Your task to perform on an android device: check battery use Image 0: 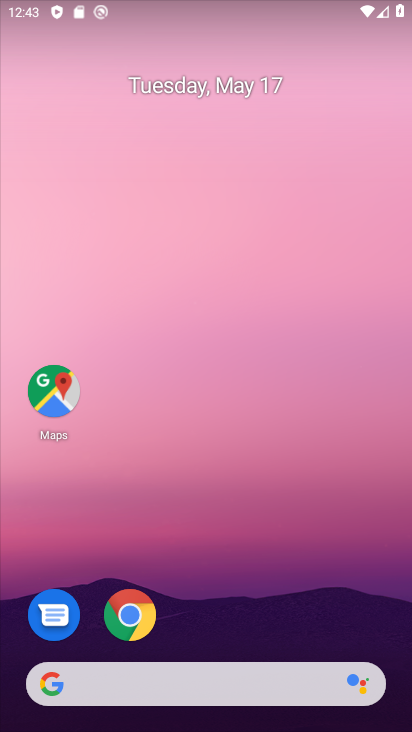
Step 0: drag from (255, 590) to (220, 136)
Your task to perform on an android device: check battery use Image 1: 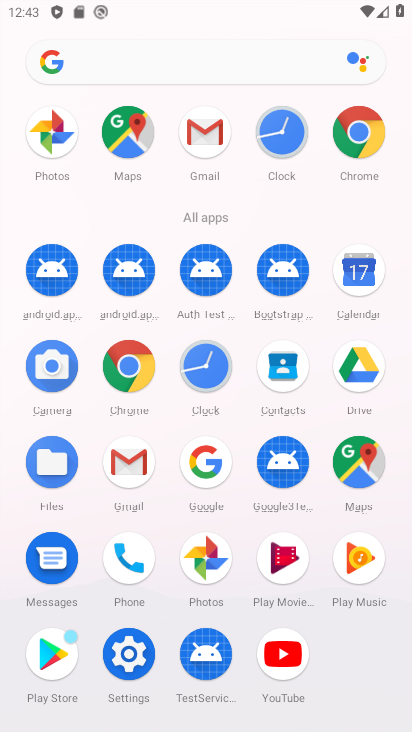
Step 1: click (128, 653)
Your task to perform on an android device: check battery use Image 2: 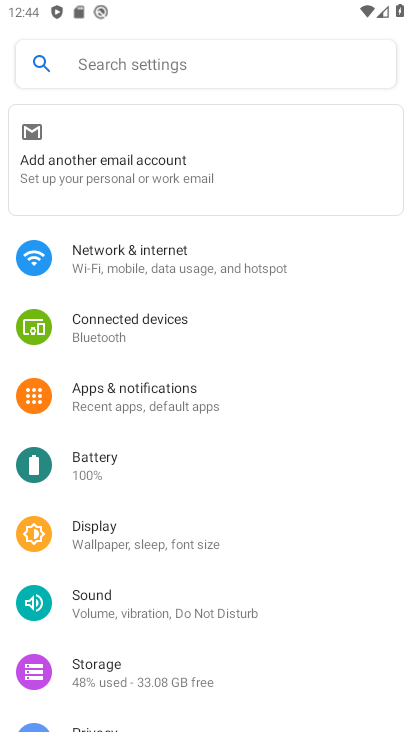
Step 2: click (86, 468)
Your task to perform on an android device: check battery use Image 3: 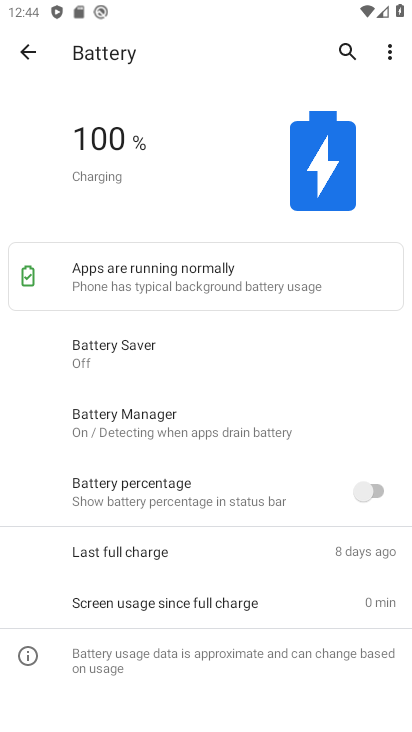
Step 3: click (391, 50)
Your task to perform on an android device: check battery use Image 4: 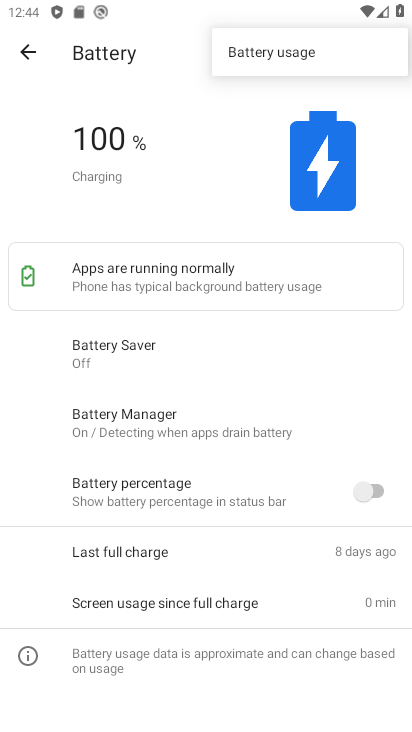
Step 4: click (288, 57)
Your task to perform on an android device: check battery use Image 5: 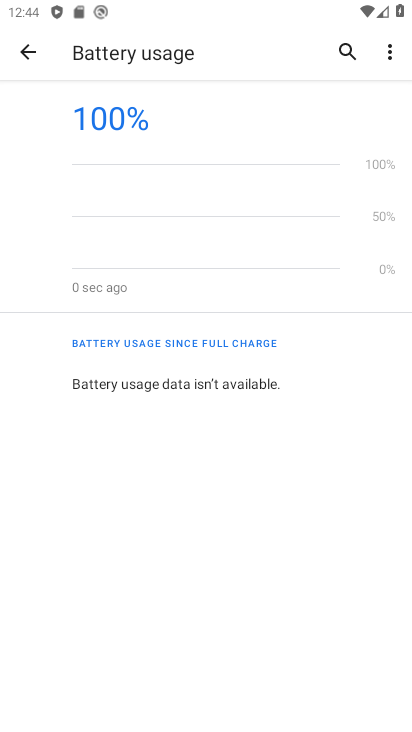
Step 5: task complete